Your task to perform on an android device: When is my next appointment? Image 0: 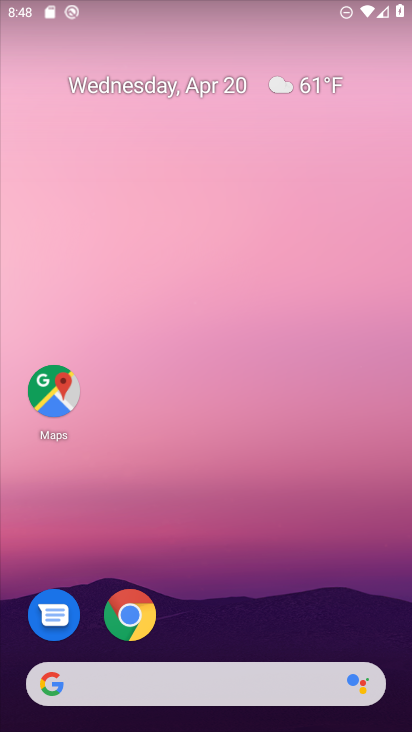
Step 0: click (288, 241)
Your task to perform on an android device: When is my next appointment? Image 1: 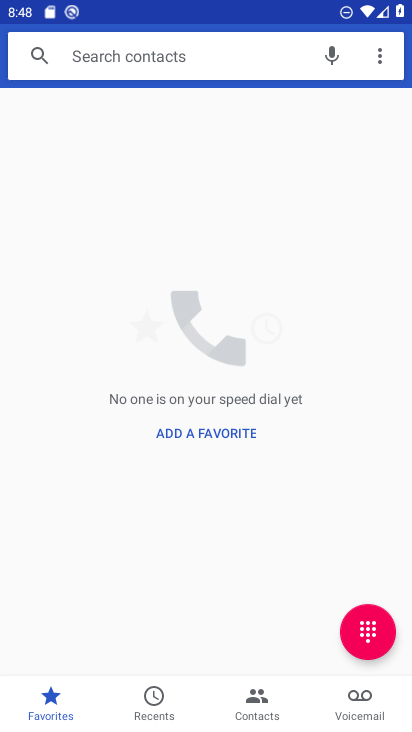
Step 1: press home button
Your task to perform on an android device: When is my next appointment? Image 2: 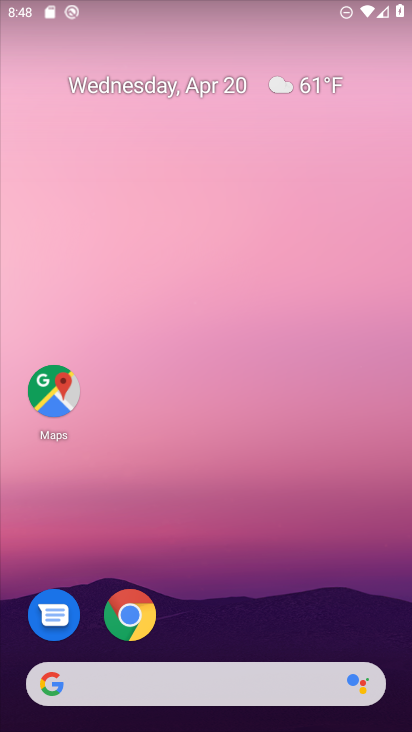
Step 2: drag from (236, 614) to (251, 206)
Your task to perform on an android device: When is my next appointment? Image 3: 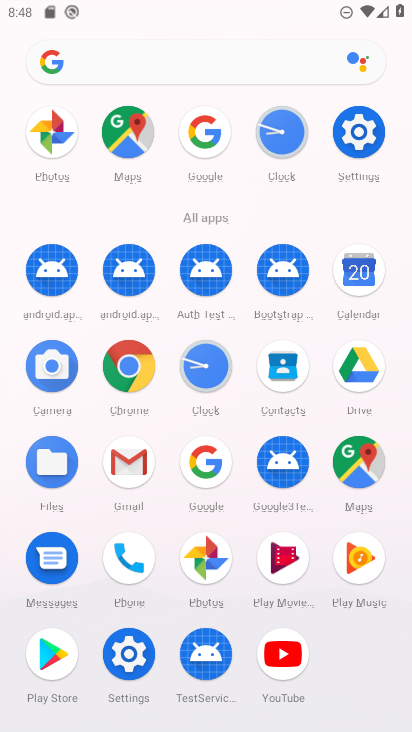
Step 3: click (366, 264)
Your task to perform on an android device: When is my next appointment? Image 4: 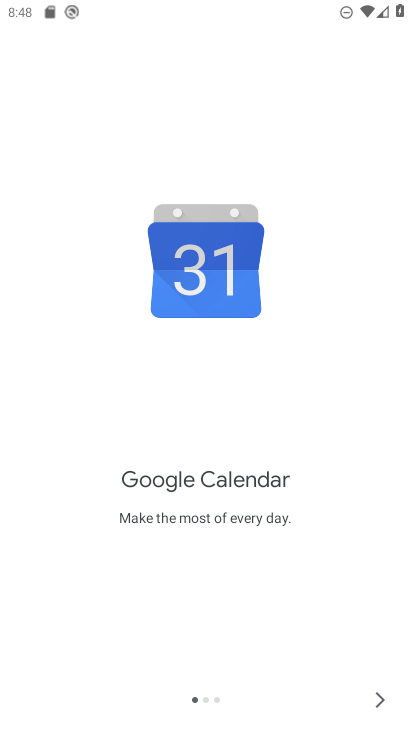
Step 4: click (368, 698)
Your task to perform on an android device: When is my next appointment? Image 5: 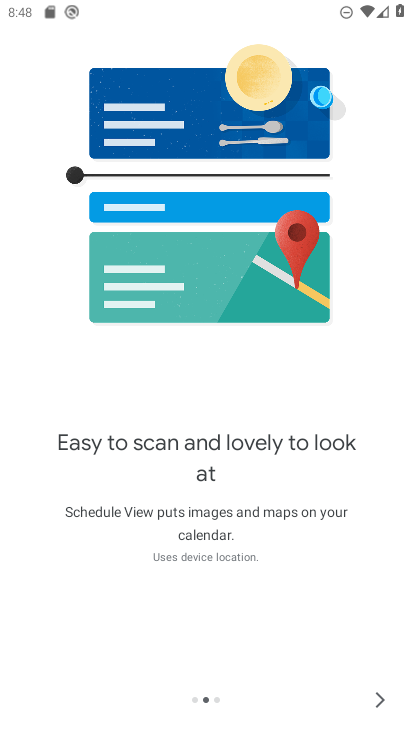
Step 5: click (359, 696)
Your task to perform on an android device: When is my next appointment? Image 6: 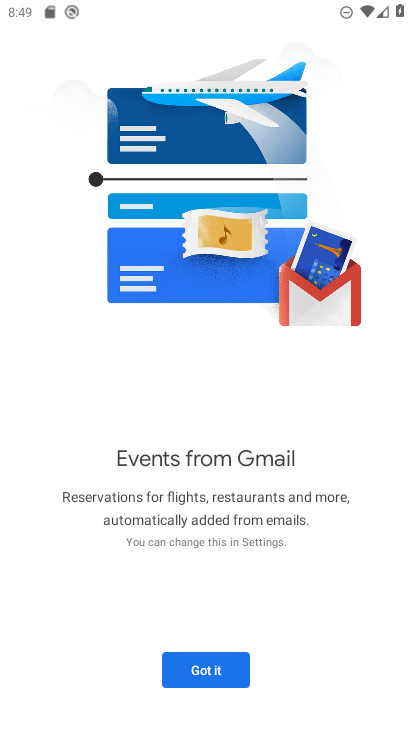
Step 6: click (202, 665)
Your task to perform on an android device: When is my next appointment? Image 7: 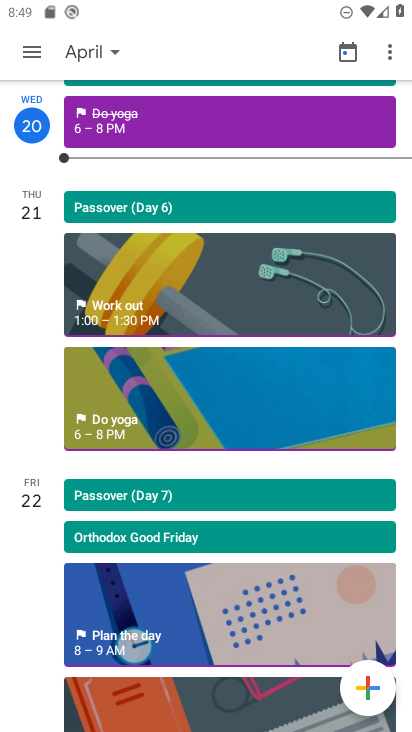
Step 7: click (30, 47)
Your task to perform on an android device: When is my next appointment? Image 8: 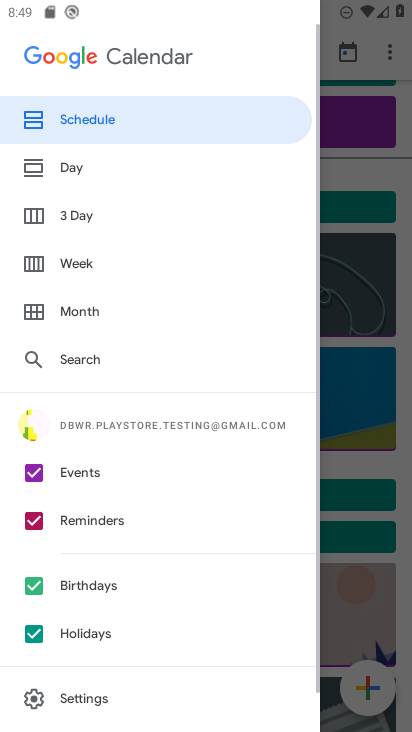
Step 8: click (98, 313)
Your task to perform on an android device: When is my next appointment? Image 9: 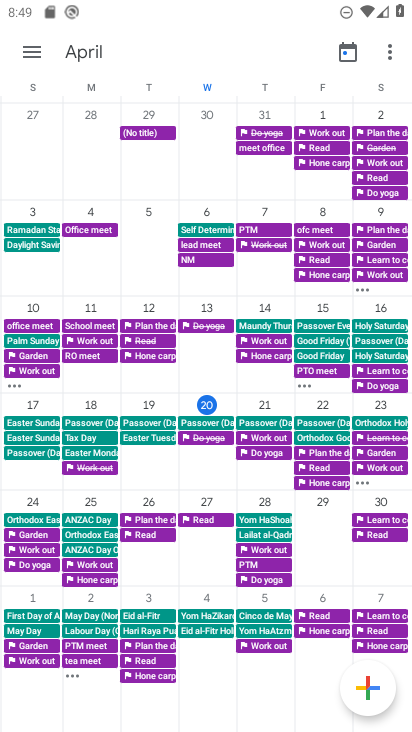
Step 9: click (273, 419)
Your task to perform on an android device: When is my next appointment? Image 10: 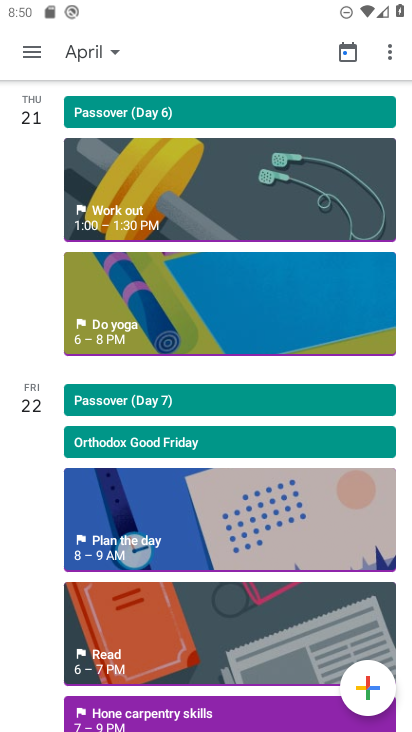
Step 10: click (37, 46)
Your task to perform on an android device: When is my next appointment? Image 11: 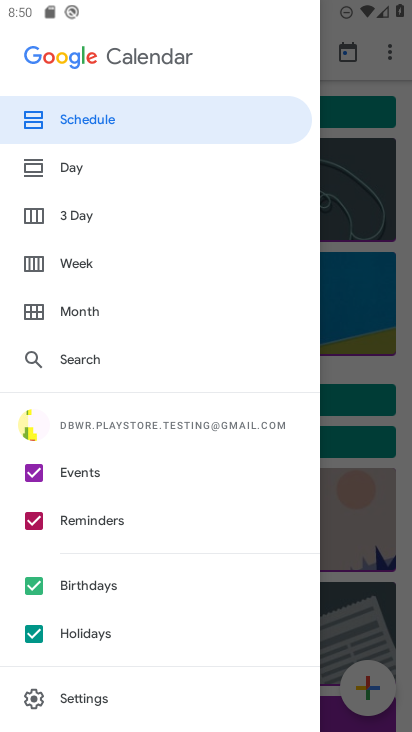
Step 11: click (376, 234)
Your task to perform on an android device: When is my next appointment? Image 12: 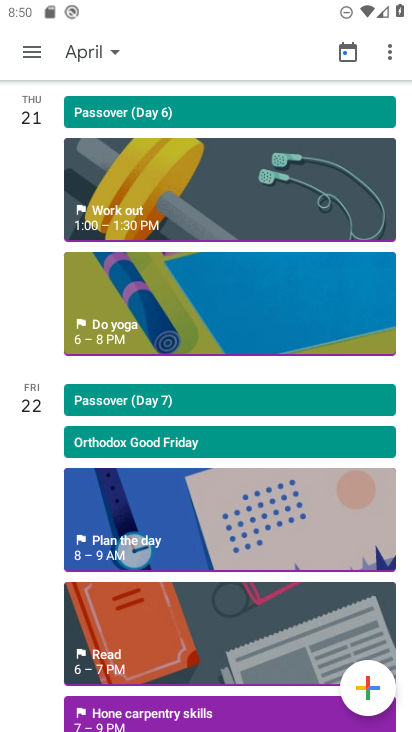
Step 12: task complete